Your task to perform on an android device: Open display settings Image 0: 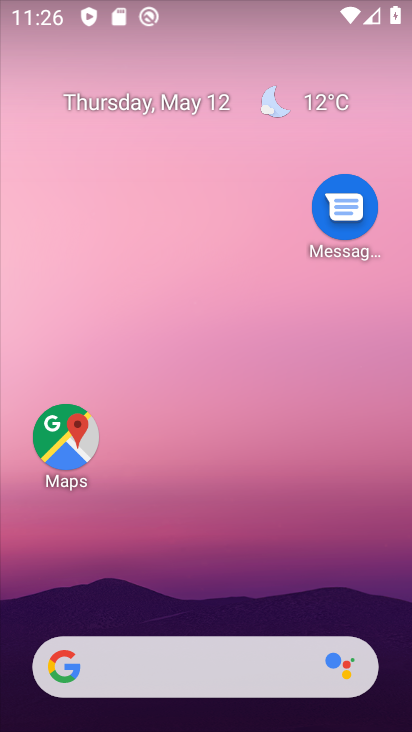
Step 0: press home button
Your task to perform on an android device: Open display settings Image 1: 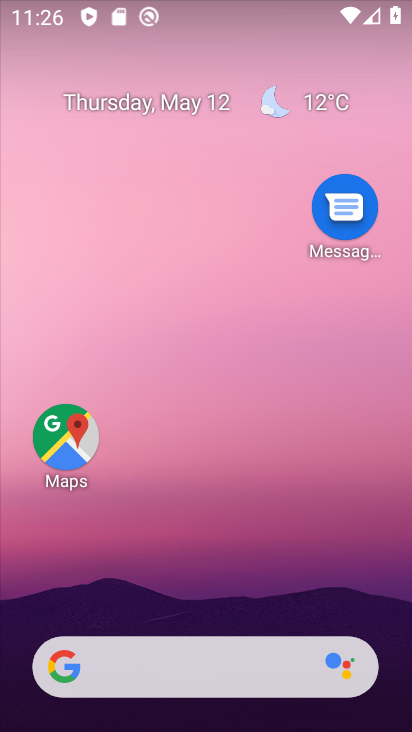
Step 1: drag from (300, 529) to (277, 47)
Your task to perform on an android device: Open display settings Image 2: 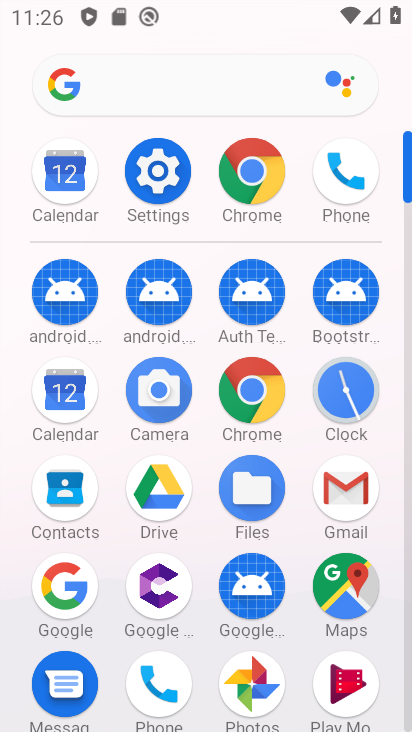
Step 2: click (167, 184)
Your task to perform on an android device: Open display settings Image 3: 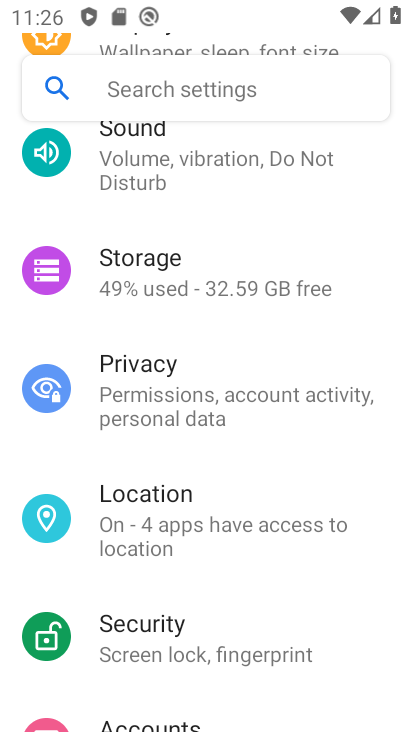
Step 3: drag from (207, 406) to (204, 730)
Your task to perform on an android device: Open display settings Image 4: 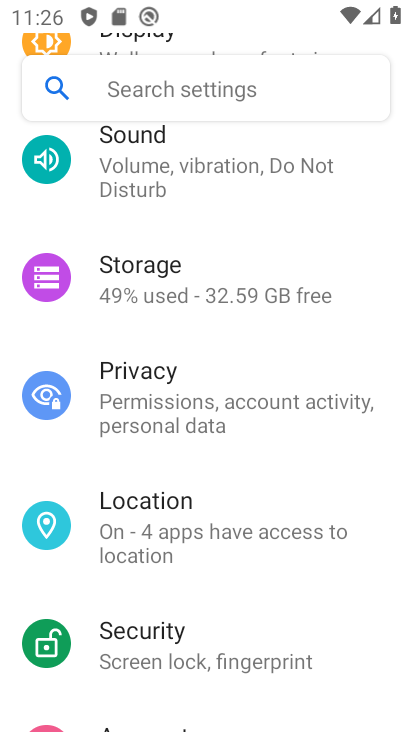
Step 4: drag from (306, 248) to (286, 730)
Your task to perform on an android device: Open display settings Image 5: 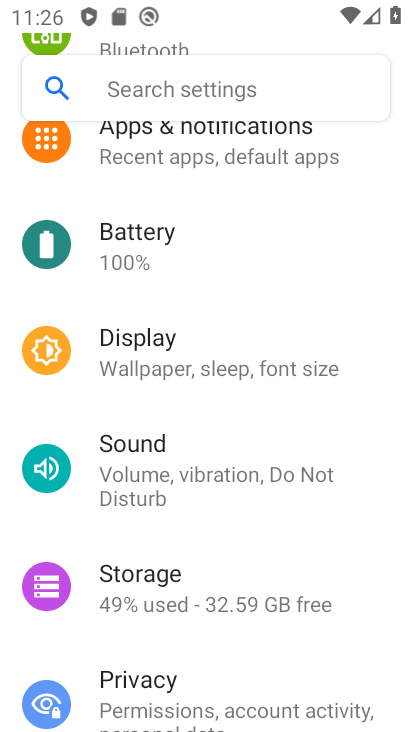
Step 5: click (192, 383)
Your task to perform on an android device: Open display settings Image 6: 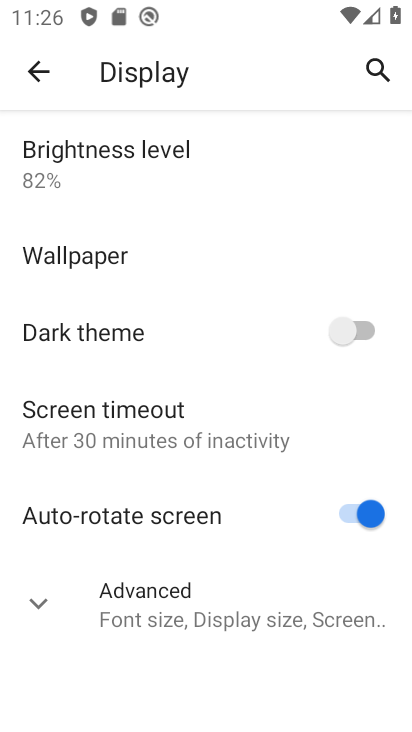
Step 6: task complete